Your task to perform on an android device: delete the emails in spam in the gmail app Image 0: 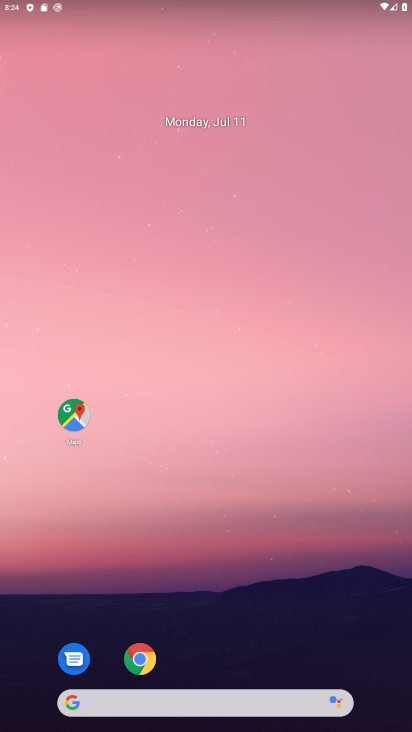
Step 0: drag from (34, 706) to (214, 237)
Your task to perform on an android device: delete the emails in spam in the gmail app Image 1: 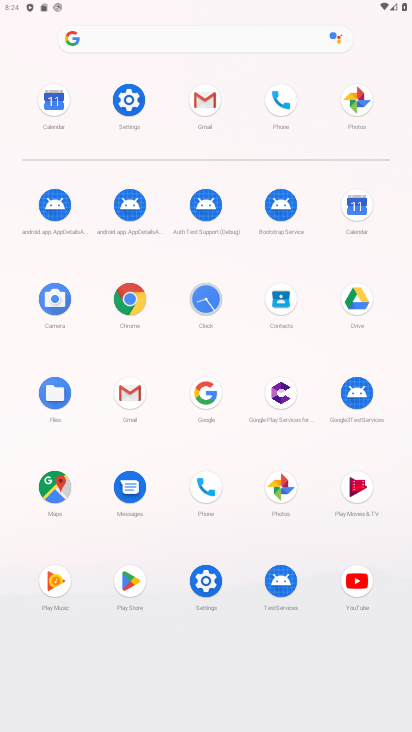
Step 1: click (129, 402)
Your task to perform on an android device: delete the emails in spam in the gmail app Image 2: 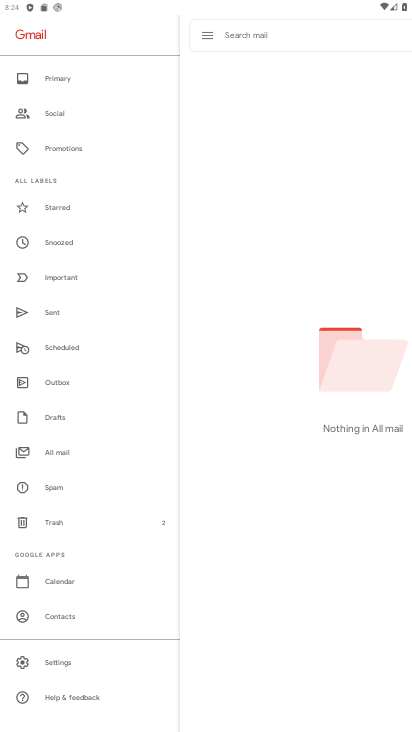
Step 2: click (66, 488)
Your task to perform on an android device: delete the emails in spam in the gmail app Image 3: 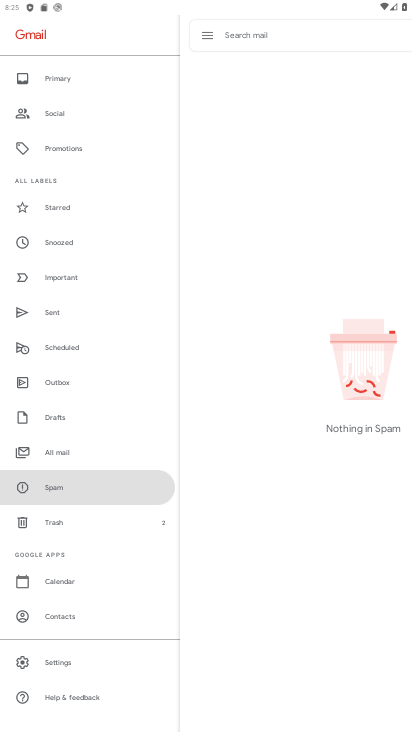
Step 3: task complete